Your task to perform on an android device: Go to settings Image 0: 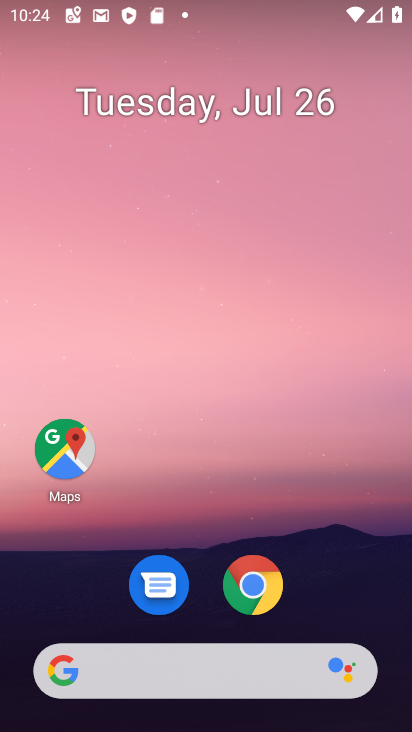
Step 0: drag from (198, 623) to (196, 261)
Your task to perform on an android device: Go to settings Image 1: 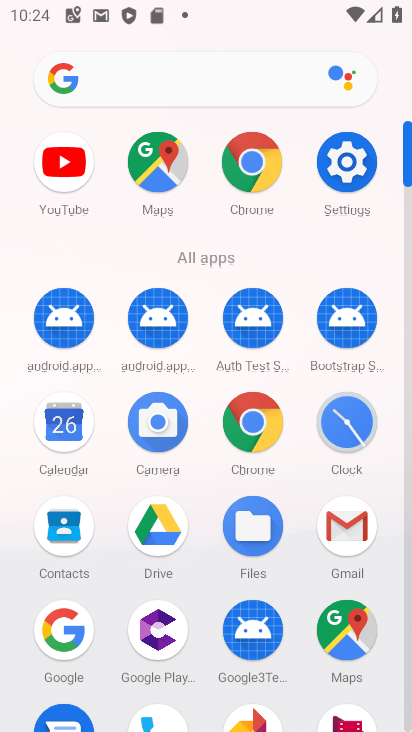
Step 1: click (339, 180)
Your task to perform on an android device: Go to settings Image 2: 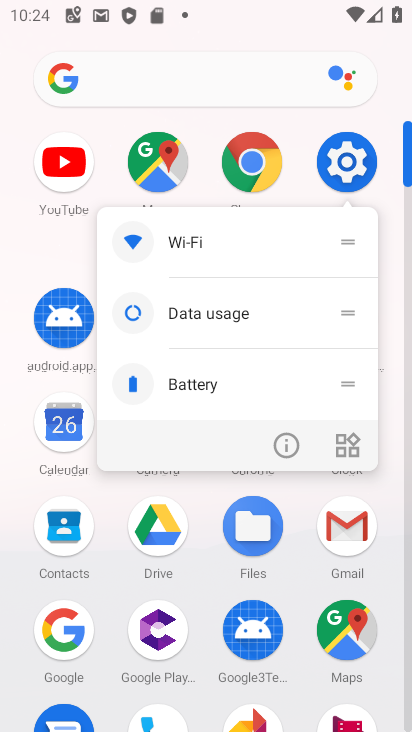
Step 2: click (338, 158)
Your task to perform on an android device: Go to settings Image 3: 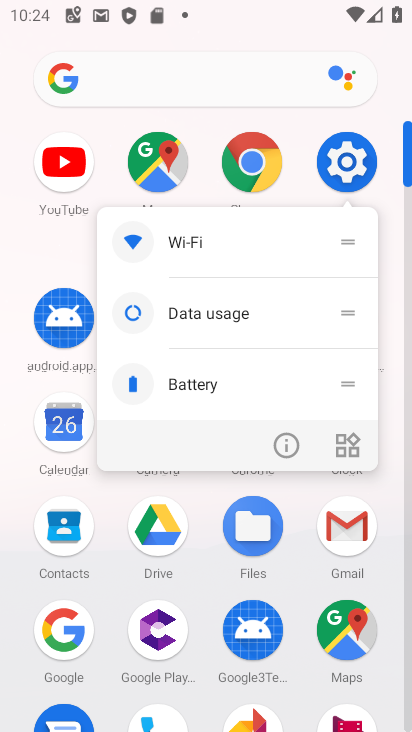
Step 3: click (336, 173)
Your task to perform on an android device: Go to settings Image 4: 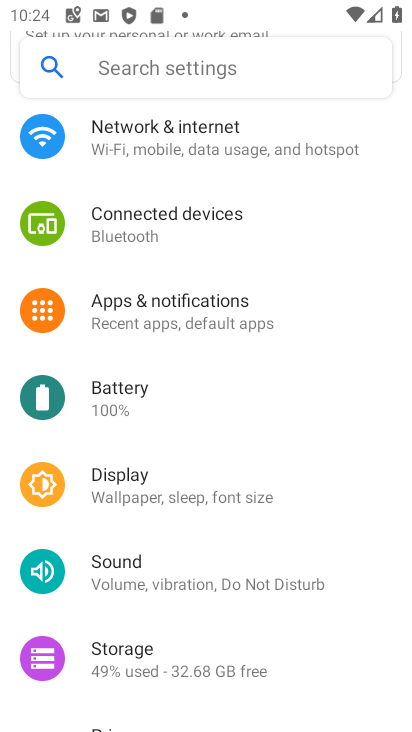
Step 4: task complete